Your task to perform on an android device: toggle data saver in the chrome app Image 0: 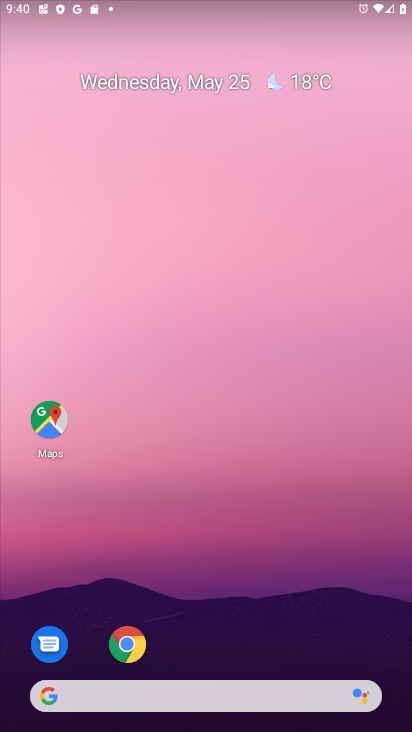
Step 0: press home button
Your task to perform on an android device: toggle data saver in the chrome app Image 1: 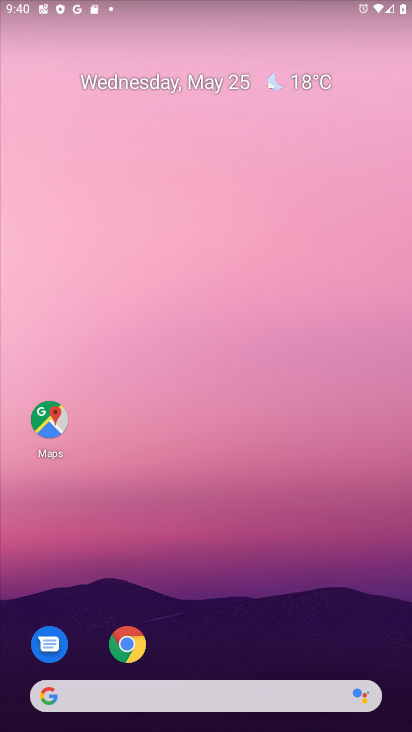
Step 1: drag from (205, 670) to (257, 5)
Your task to perform on an android device: toggle data saver in the chrome app Image 2: 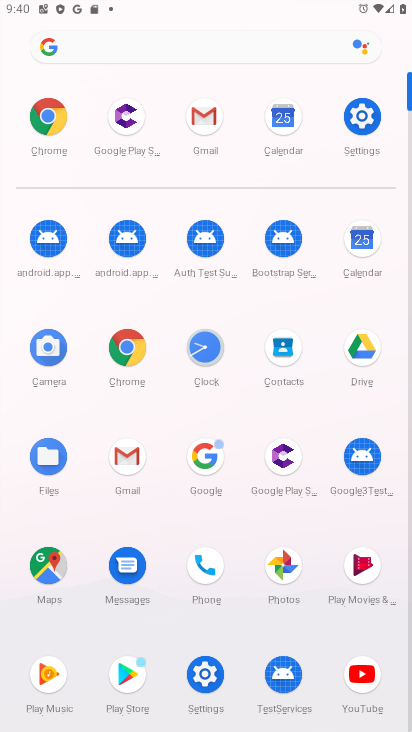
Step 2: click (45, 110)
Your task to perform on an android device: toggle data saver in the chrome app Image 3: 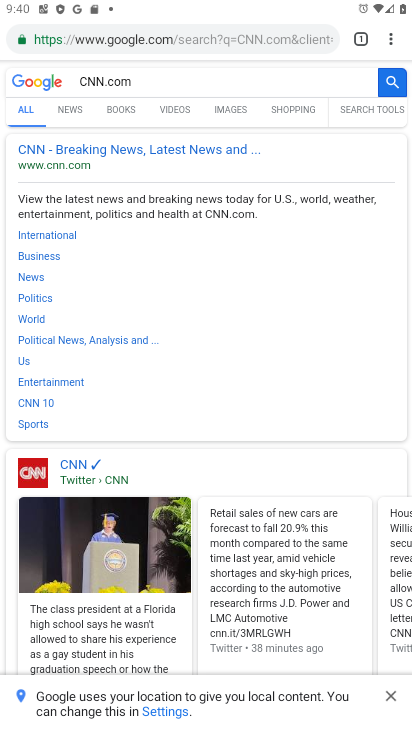
Step 3: click (358, 38)
Your task to perform on an android device: toggle data saver in the chrome app Image 4: 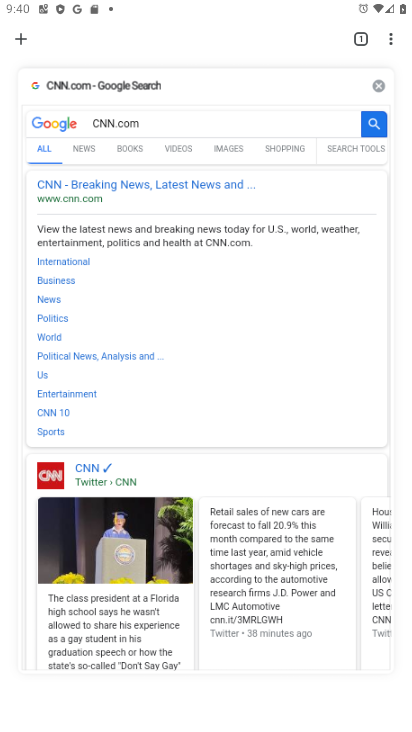
Step 4: click (378, 83)
Your task to perform on an android device: toggle data saver in the chrome app Image 5: 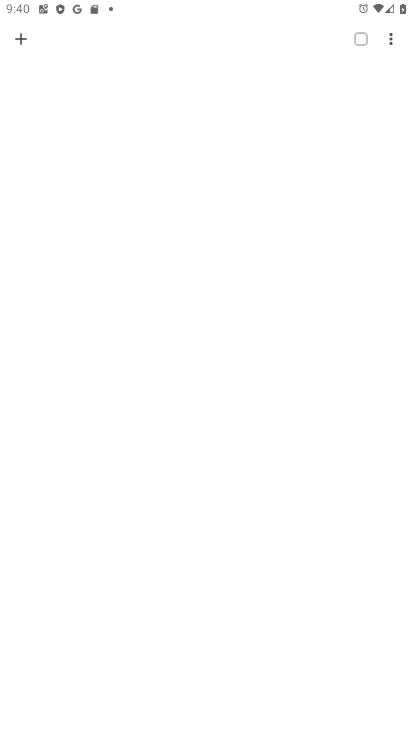
Step 5: click (25, 39)
Your task to perform on an android device: toggle data saver in the chrome app Image 6: 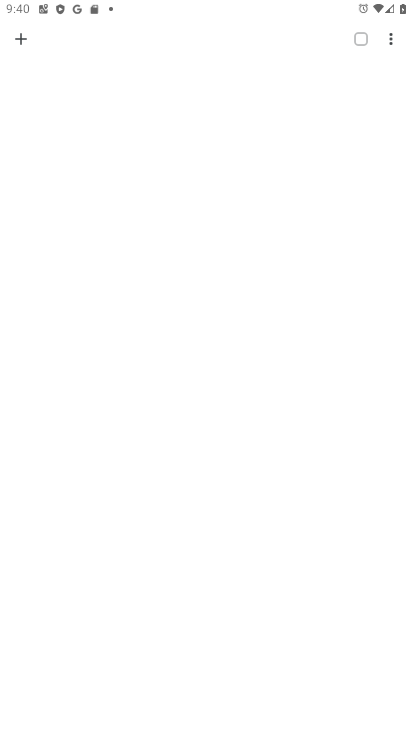
Step 6: click (25, 39)
Your task to perform on an android device: toggle data saver in the chrome app Image 7: 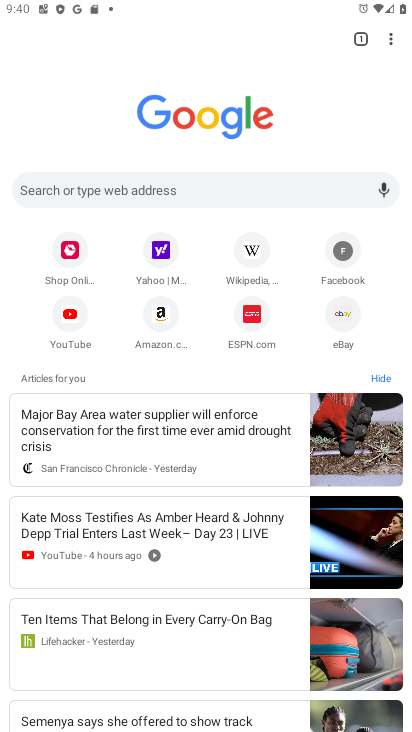
Step 7: click (393, 33)
Your task to perform on an android device: toggle data saver in the chrome app Image 8: 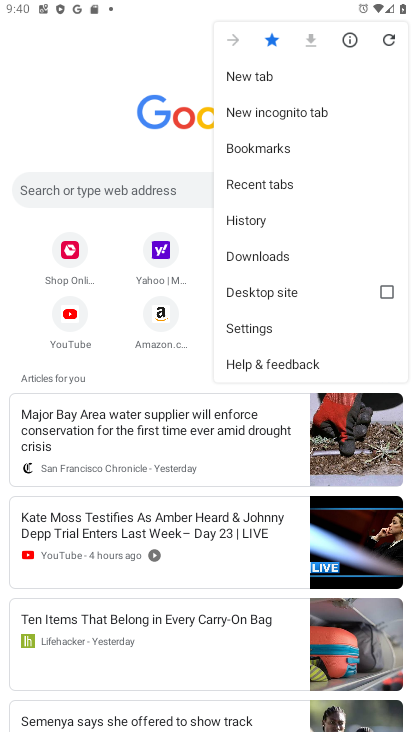
Step 8: click (283, 327)
Your task to perform on an android device: toggle data saver in the chrome app Image 9: 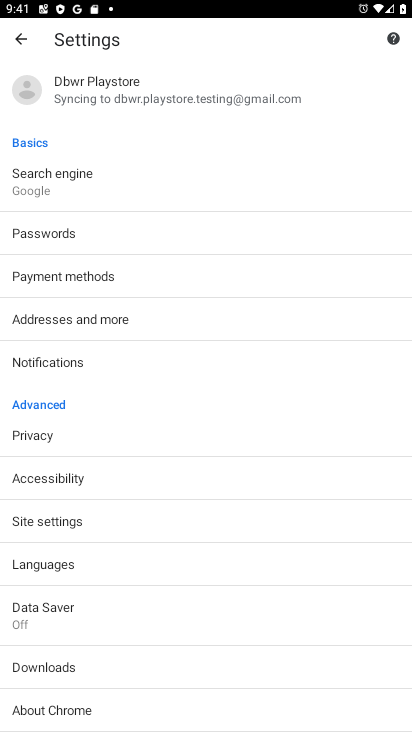
Step 9: click (88, 618)
Your task to perform on an android device: toggle data saver in the chrome app Image 10: 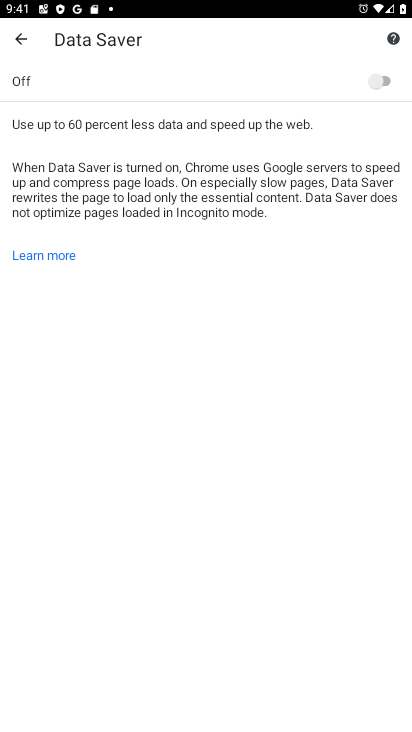
Step 10: click (388, 79)
Your task to perform on an android device: toggle data saver in the chrome app Image 11: 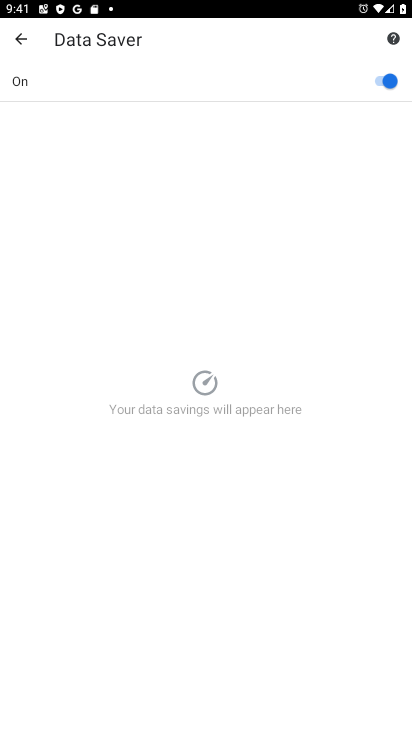
Step 11: task complete